Your task to perform on an android device: turn on notifications settings in the gmail app Image 0: 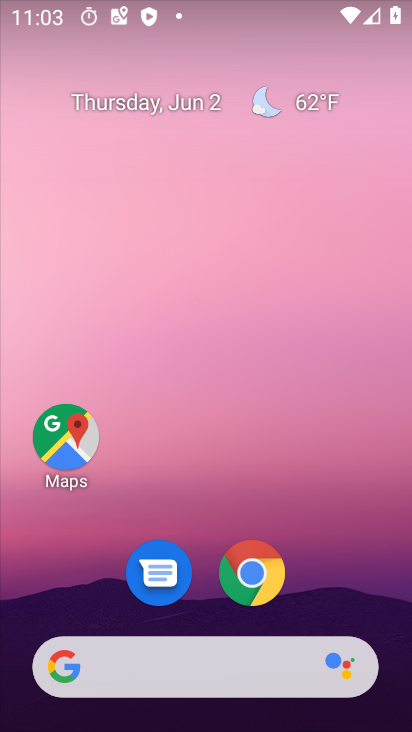
Step 0: drag from (220, 685) to (296, 112)
Your task to perform on an android device: turn on notifications settings in the gmail app Image 1: 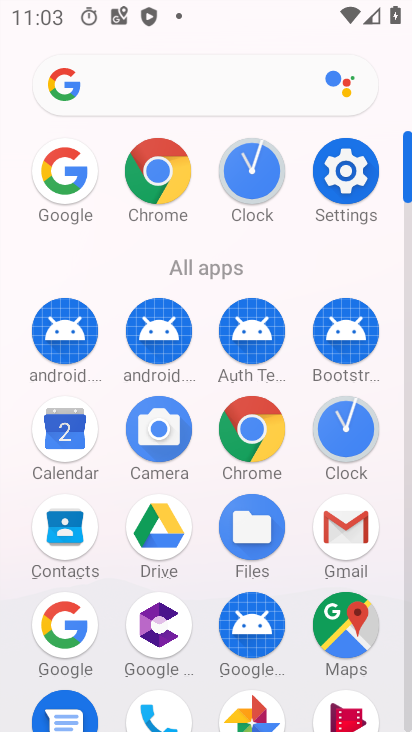
Step 1: click (352, 527)
Your task to perform on an android device: turn on notifications settings in the gmail app Image 2: 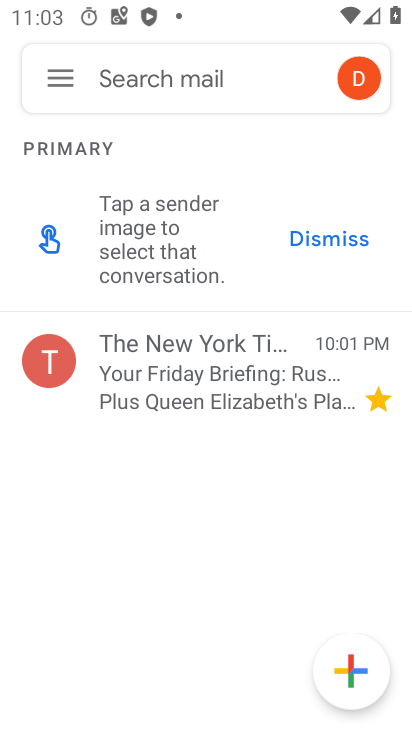
Step 2: click (75, 64)
Your task to perform on an android device: turn on notifications settings in the gmail app Image 3: 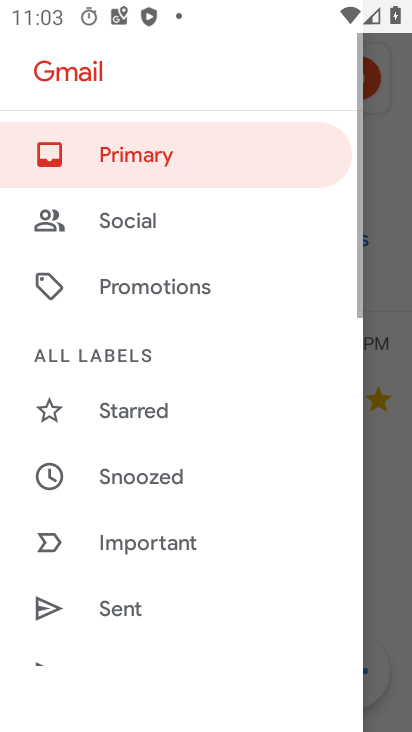
Step 3: drag from (222, 630) to (276, 109)
Your task to perform on an android device: turn on notifications settings in the gmail app Image 4: 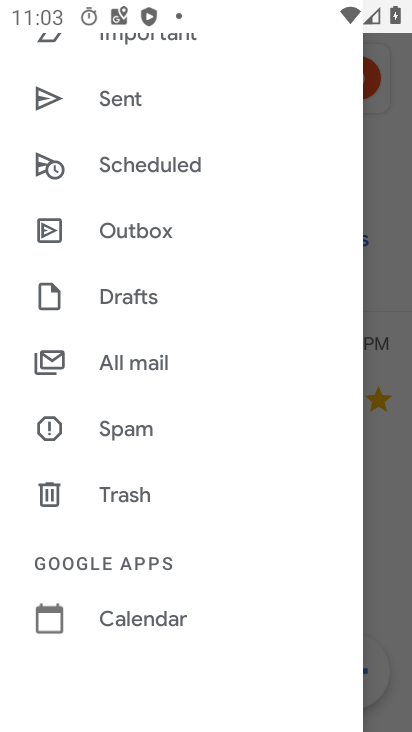
Step 4: drag from (187, 663) to (230, 228)
Your task to perform on an android device: turn on notifications settings in the gmail app Image 5: 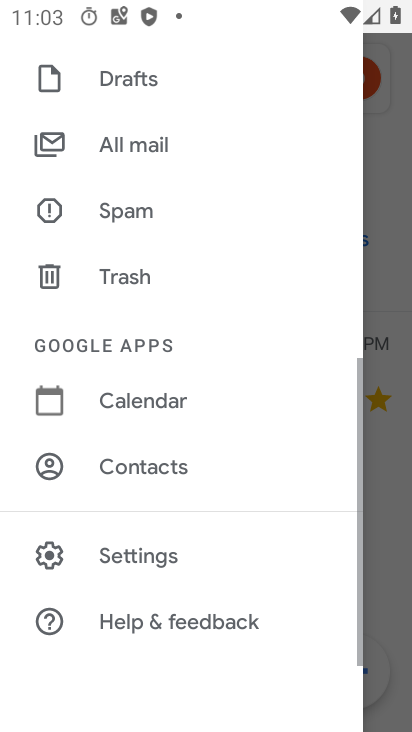
Step 5: click (213, 557)
Your task to perform on an android device: turn on notifications settings in the gmail app Image 6: 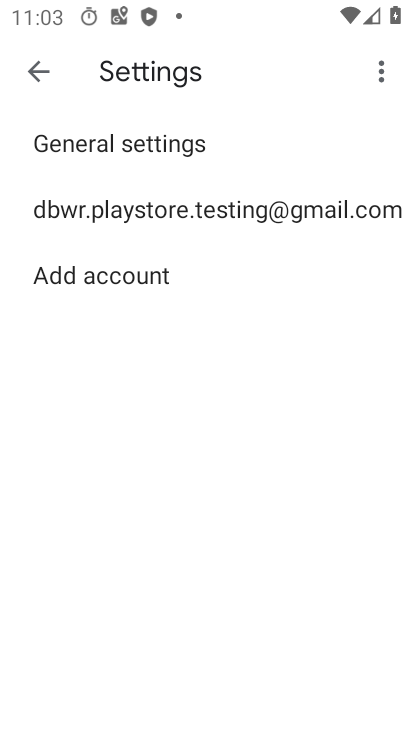
Step 6: click (199, 220)
Your task to perform on an android device: turn on notifications settings in the gmail app Image 7: 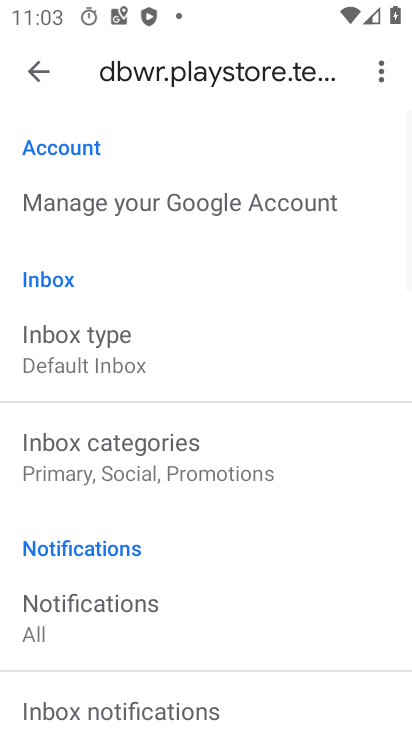
Step 7: drag from (119, 604) to (210, 60)
Your task to perform on an android device: turn on notifications settings in the gmail app Image 8: 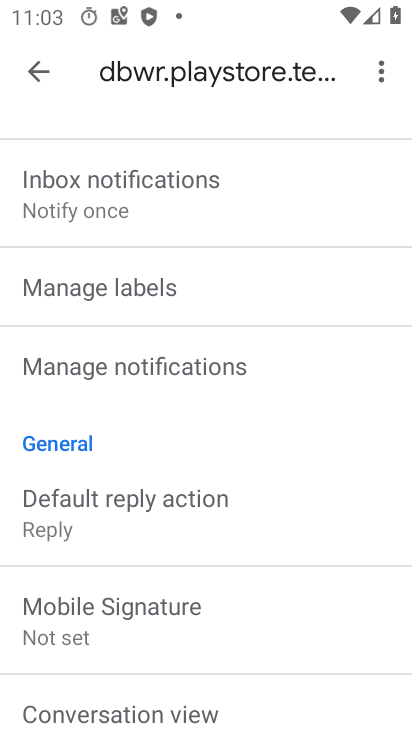
Step 8: click (162, 370)
Your task to perform on an android device: turn on notifications settings in the gmail app Image 9: 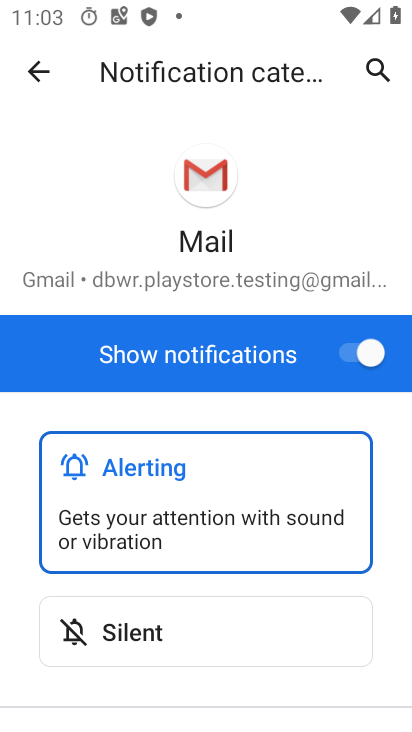
Step 9: task complete